Your task to perform on an android device: set an alarm Image 0: 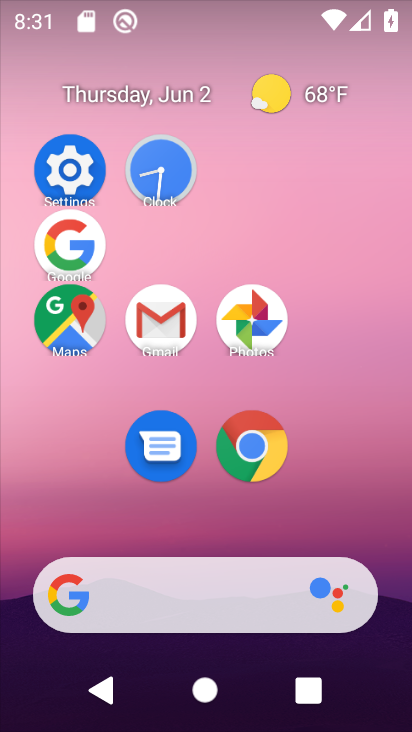
Step 0: click (187, 172)
Your task to perform on an android device: set an alarm Image 1: 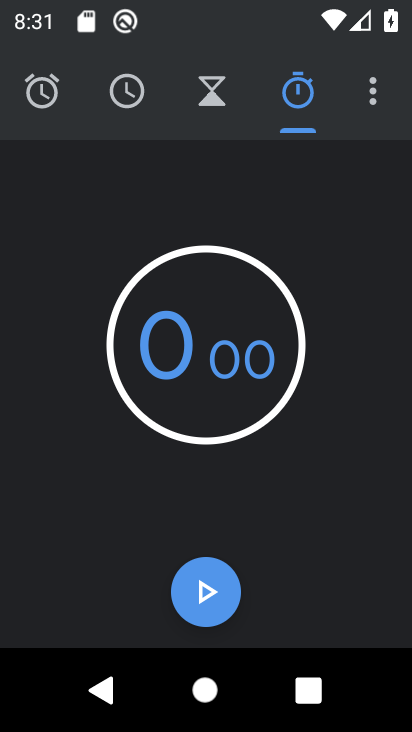
Step 1: click (66, 99)
Your task to perform on an android device: set an alarm Image 2: 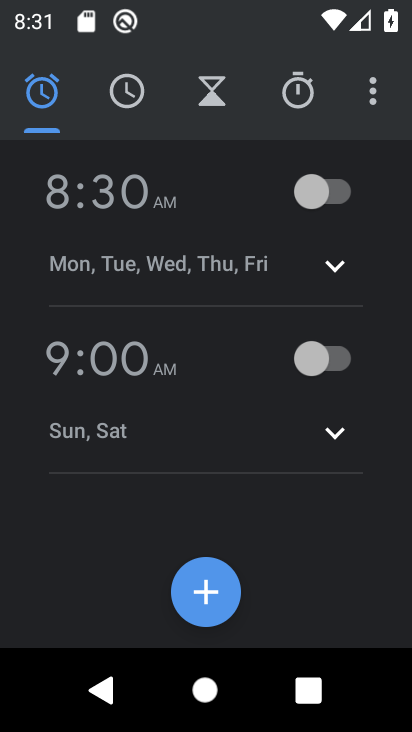
Step 2: click (319, 206)
Your task to perform on an android device: set an alarm Image 3: 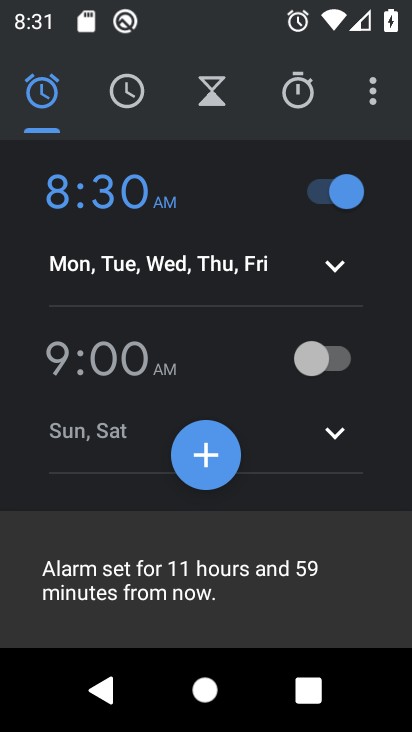
Step 3: task complete